Your task to perform on an android device: uninstall "The Home Depot" Image 0: 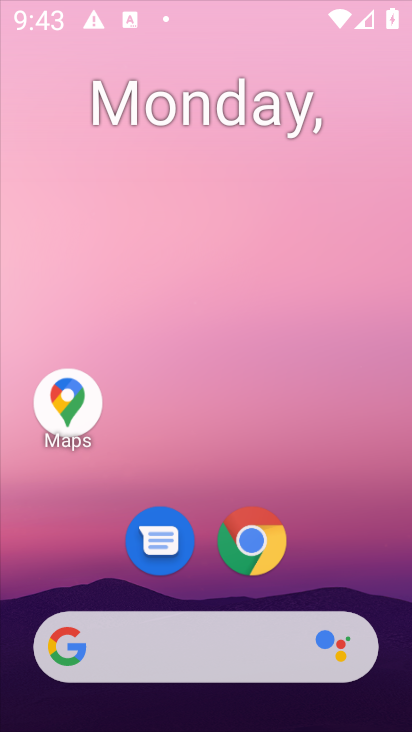
Step 0: press home button
Your task to perform on an android device: uninstall "The Home Depot" Image 1: 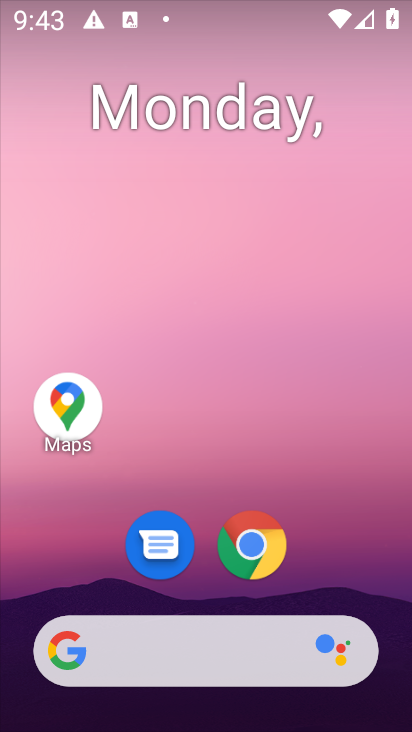
Step 1: drag from (354, 588) to (367, 83)
Your task to perform on an android device: uninstall "The Home Depot" Image 2: 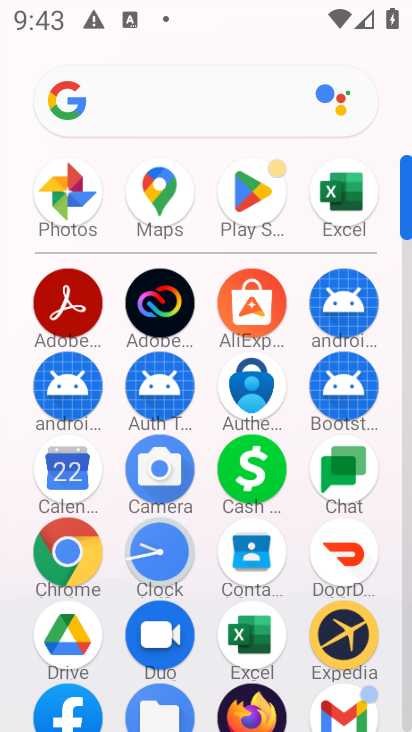
Step 2: click (250, 203)
Your task to perform on an android device: uninstall "The Home Depot" Image 3: 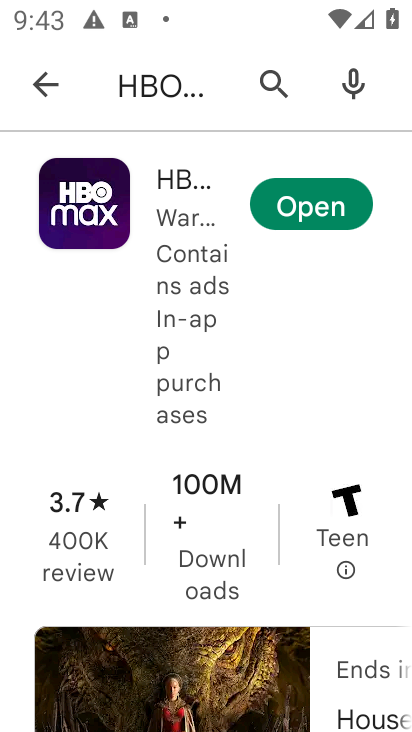
Step 3: press back button
Your task to perform on an android device: uninstall "The Home Depot" Image 4: 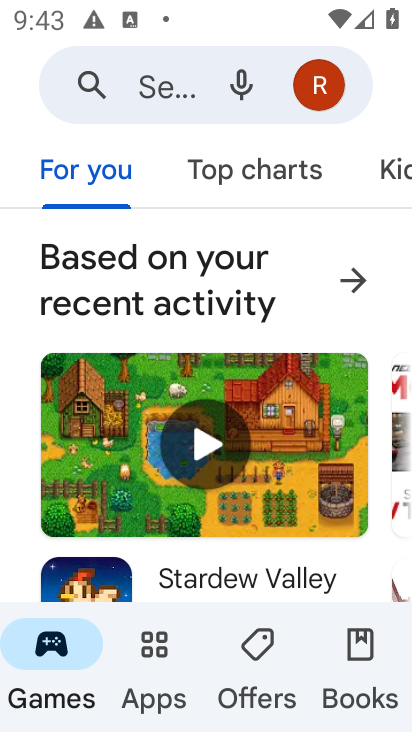
Step 4: click (156, 82)
Your task to perform on an android device: uninstall "The Home Depot" Image 5: 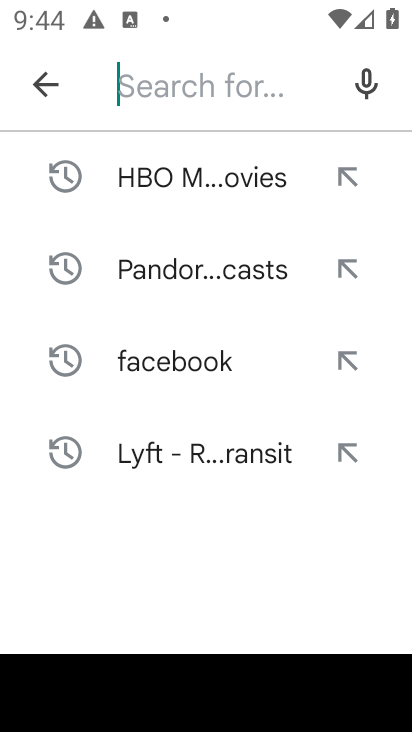
Step 5: type "The Home Depot"
Your task to perform on an android device: uninstall "The Home Depot" Image 6: 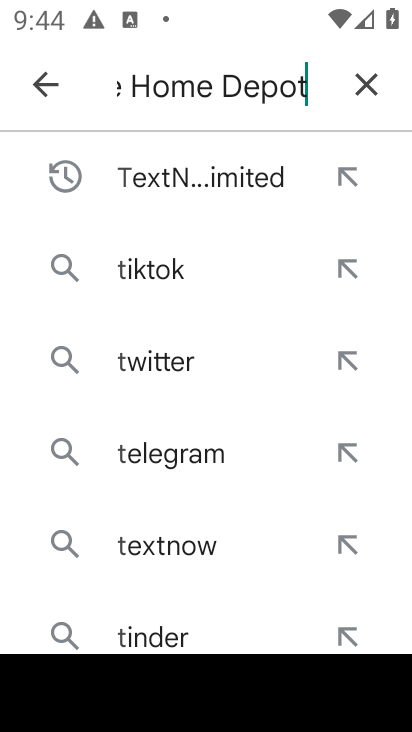
Step 6: press enter
Your task to perform on an android device: uninstall "The Home Depot" Image 7: 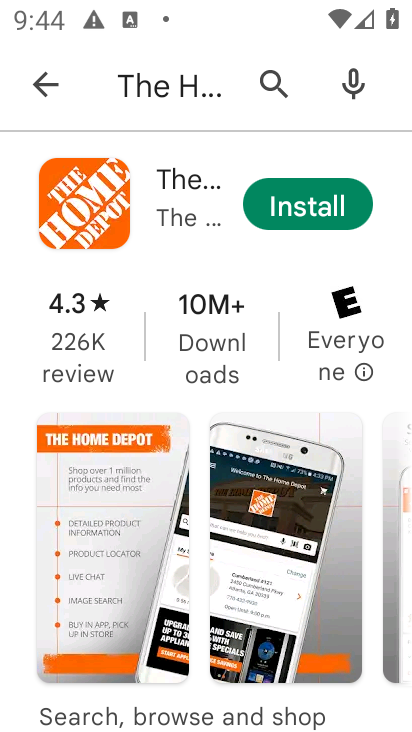
Step 7: task complete